Your task to perform on an android device: open device folders in google photos Image 0: 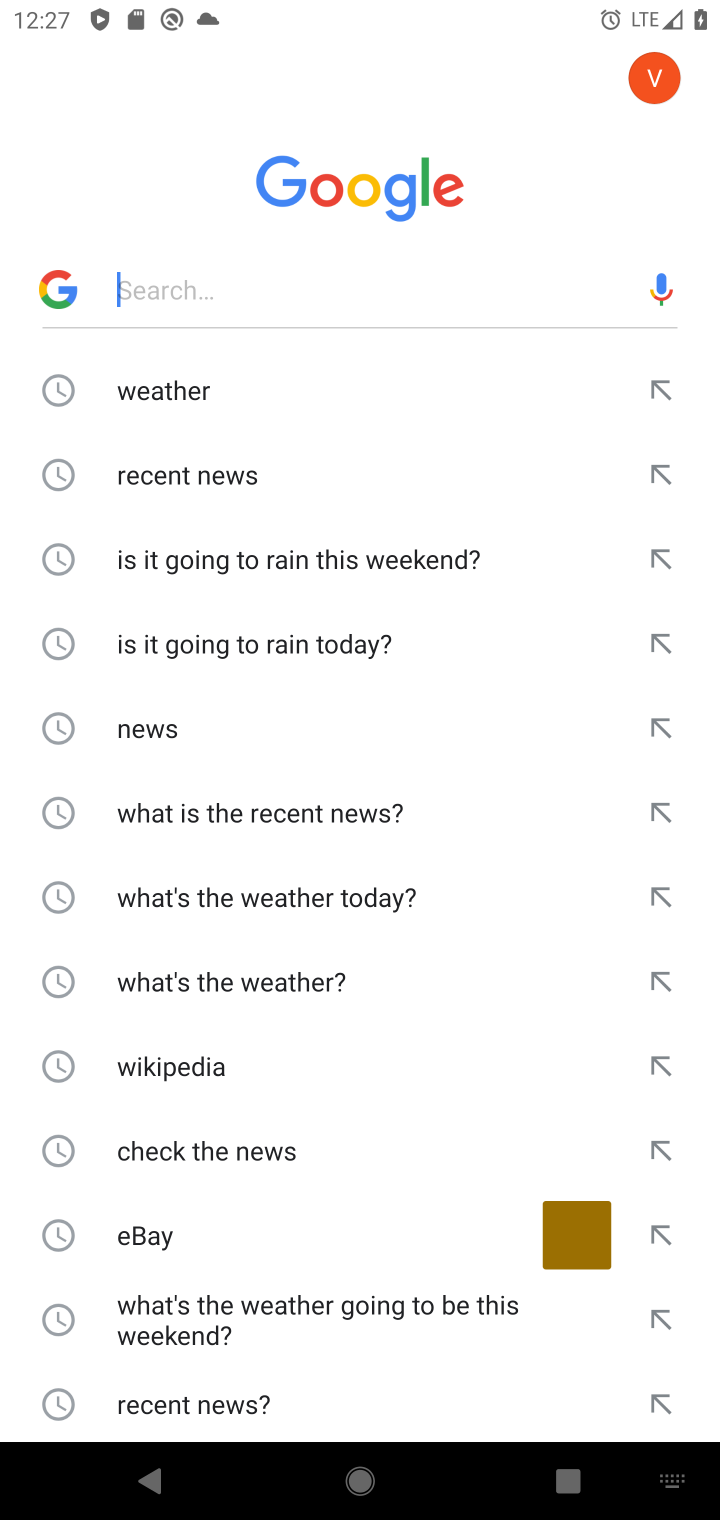
Step 0: press home button
Your task to perform on an android device: open device folders in google photos Image 1: 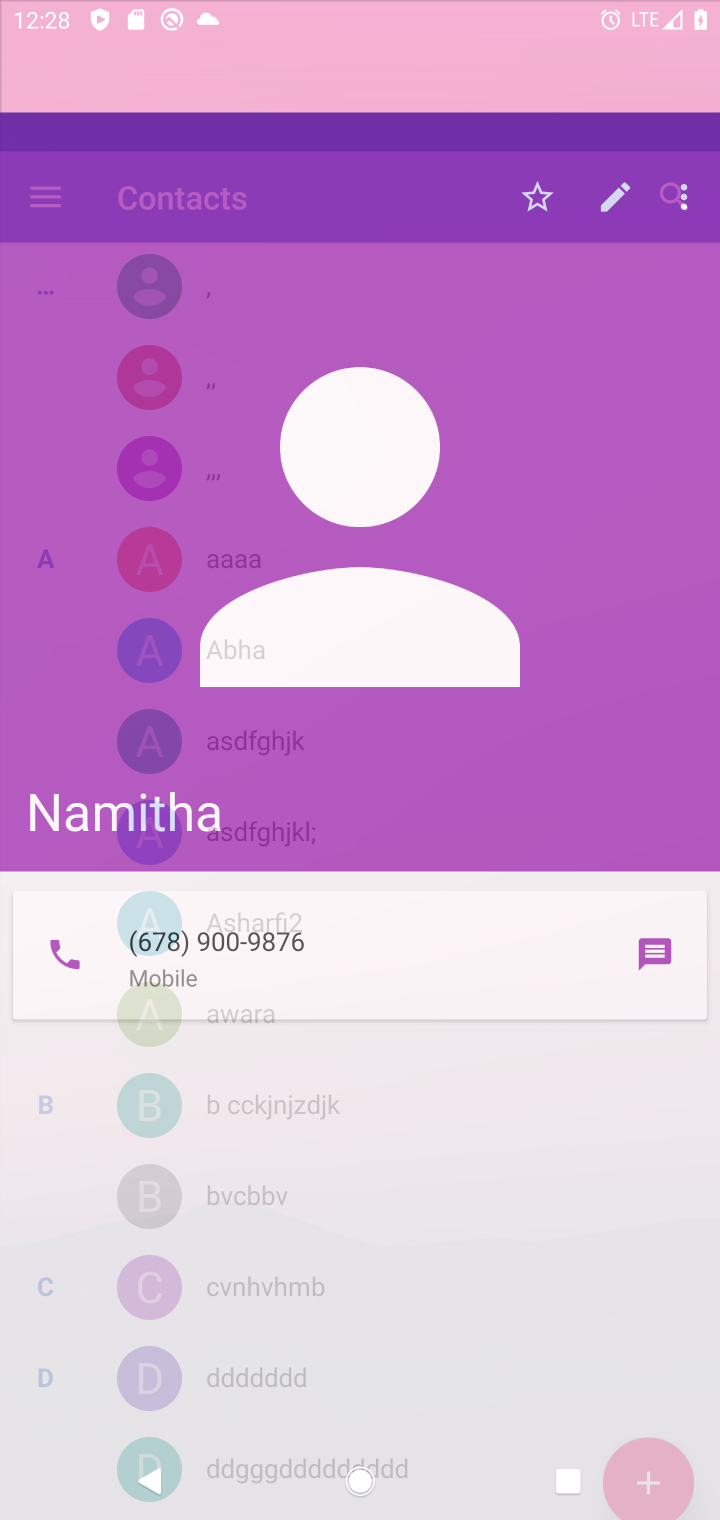
Step 1: press home button
Your task to perform on an android device: open device folders in google photos Image 2: 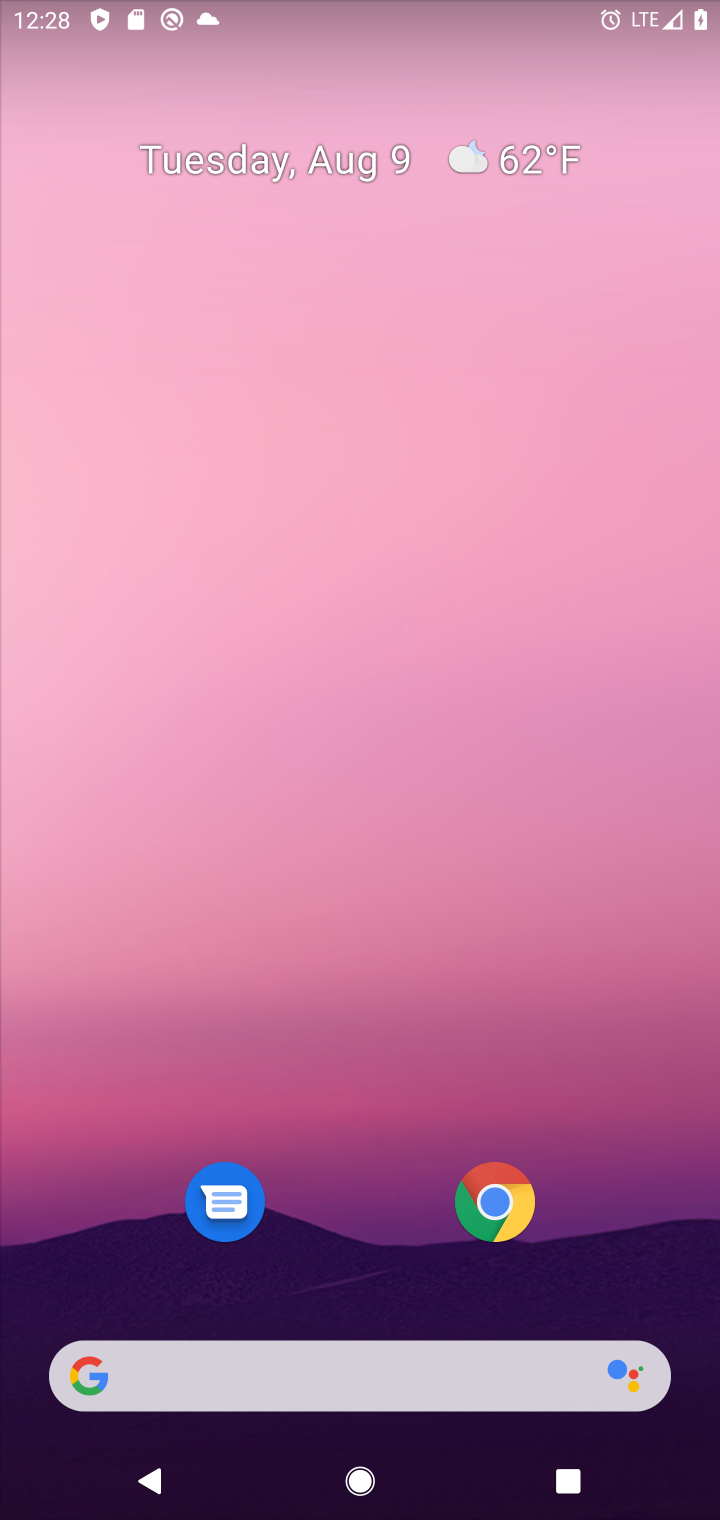
Step 2: click (333, 189)
Your task to perform on an android device: open device folders in google photos Image 3: 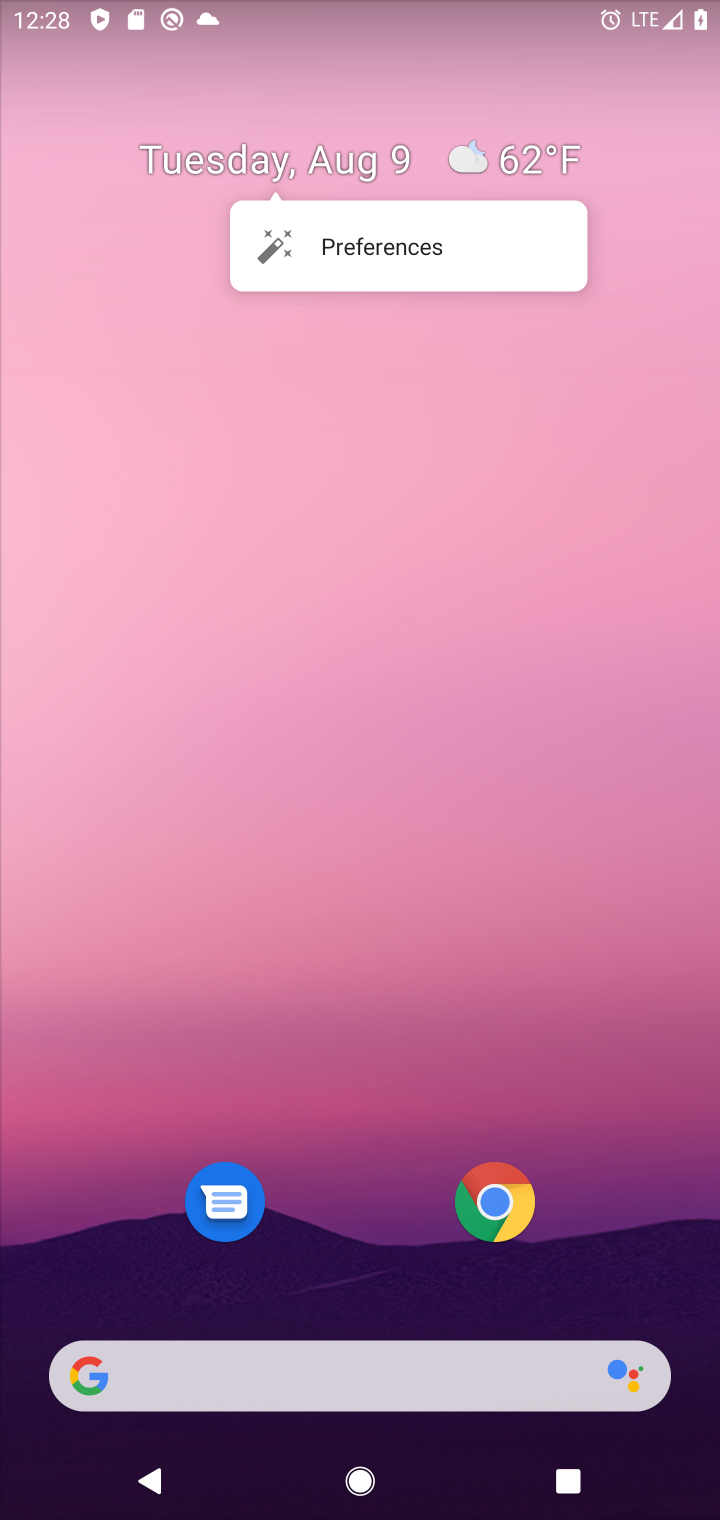
Step 3: drag from (347, 1118) to (410, 482)
Your task to perform on an android device: open device folders in google photos Image 4: 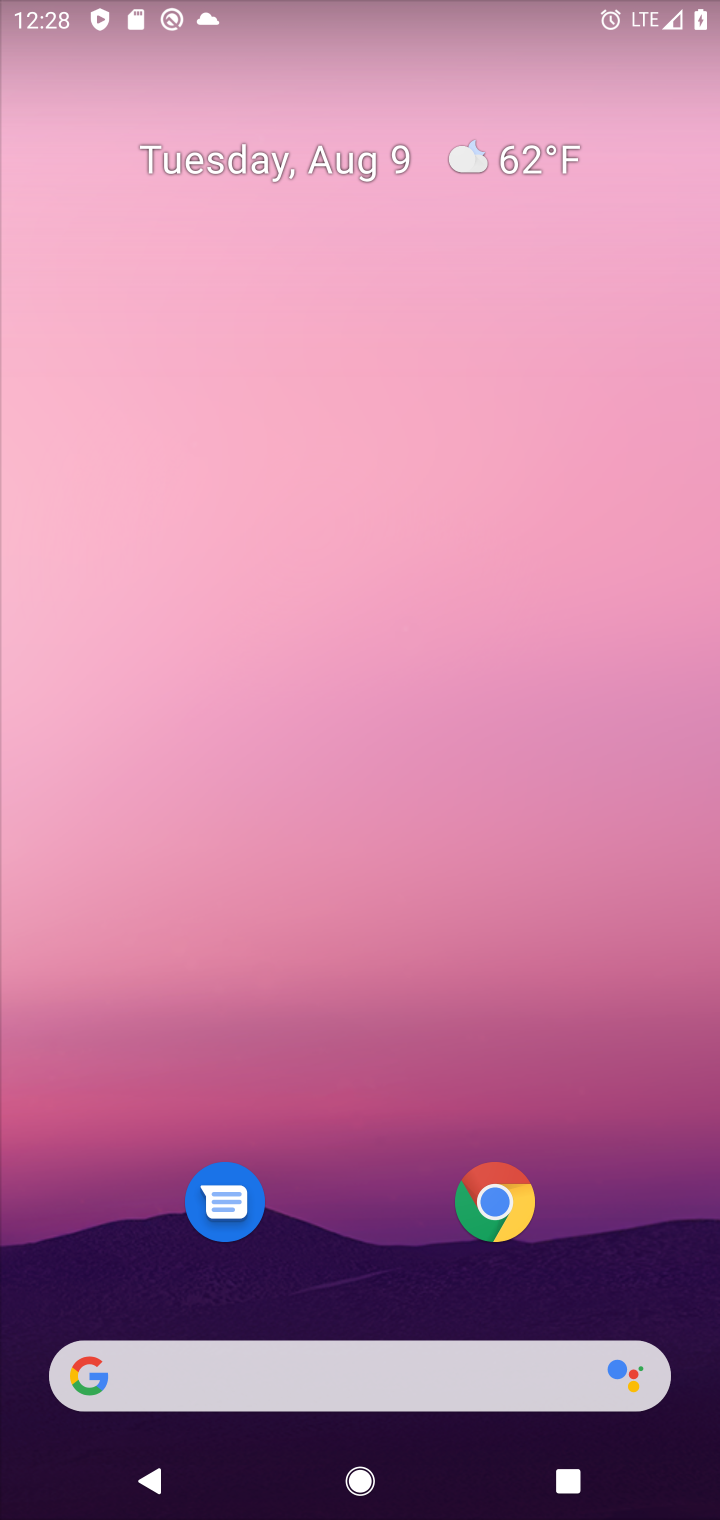
Step 4: drag from (307, 831) to (373, 585)
Your task to perform on an android device: open device folders in google photos Image 5: 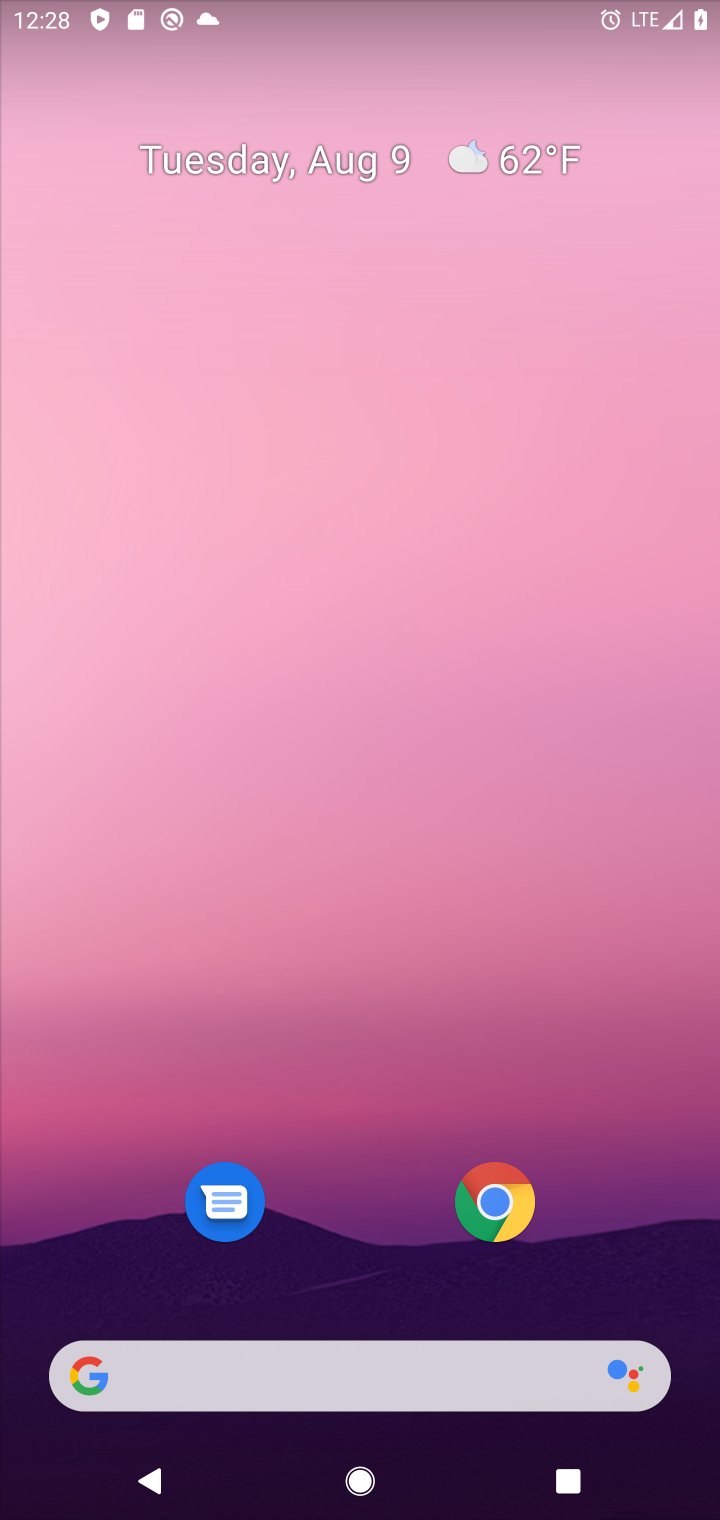
Step 5: drag from (356, 1273) to (351, 533)
Your task to perform on an android device: open device folders in google photos Image 6: 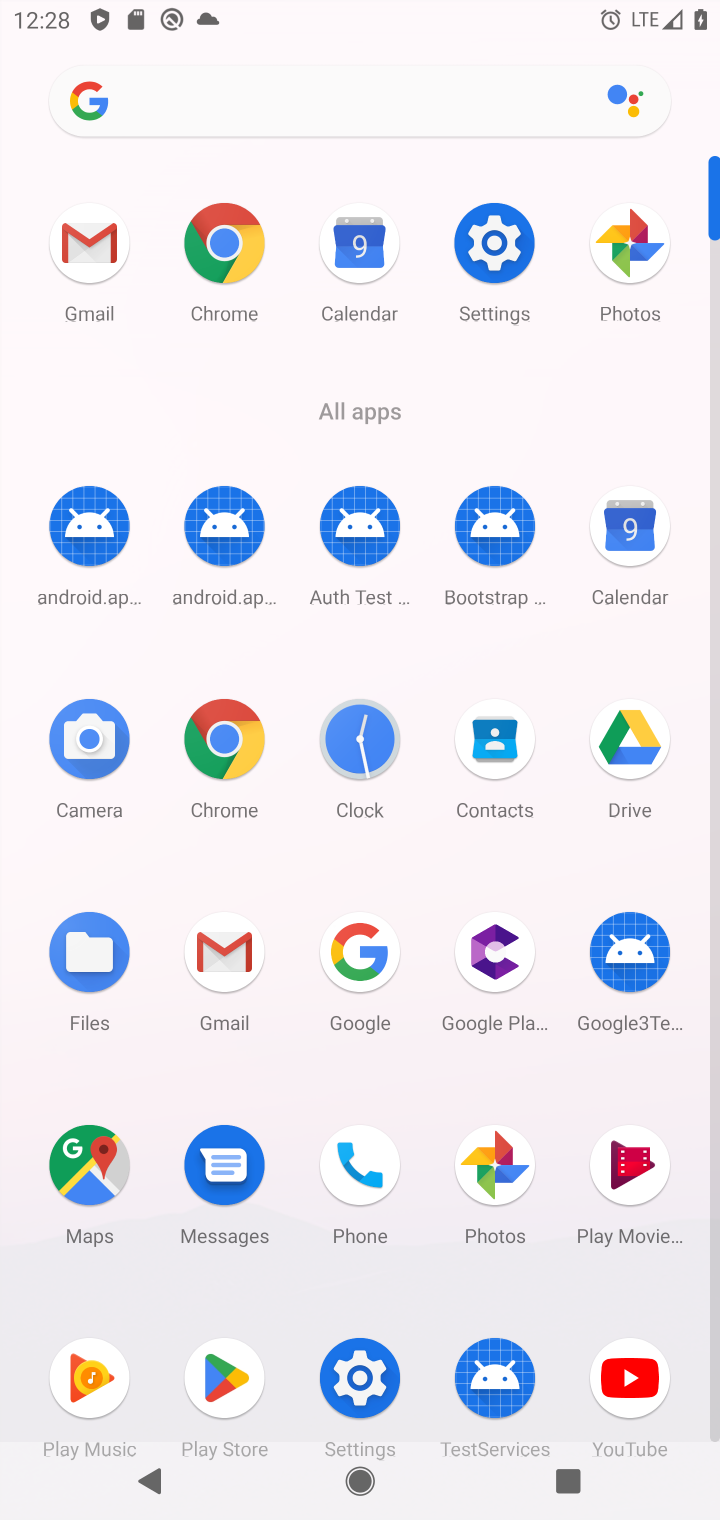
Step 6: click (503, 1146)
Your task to perform on an android device: open device folders in google photos Image 7: 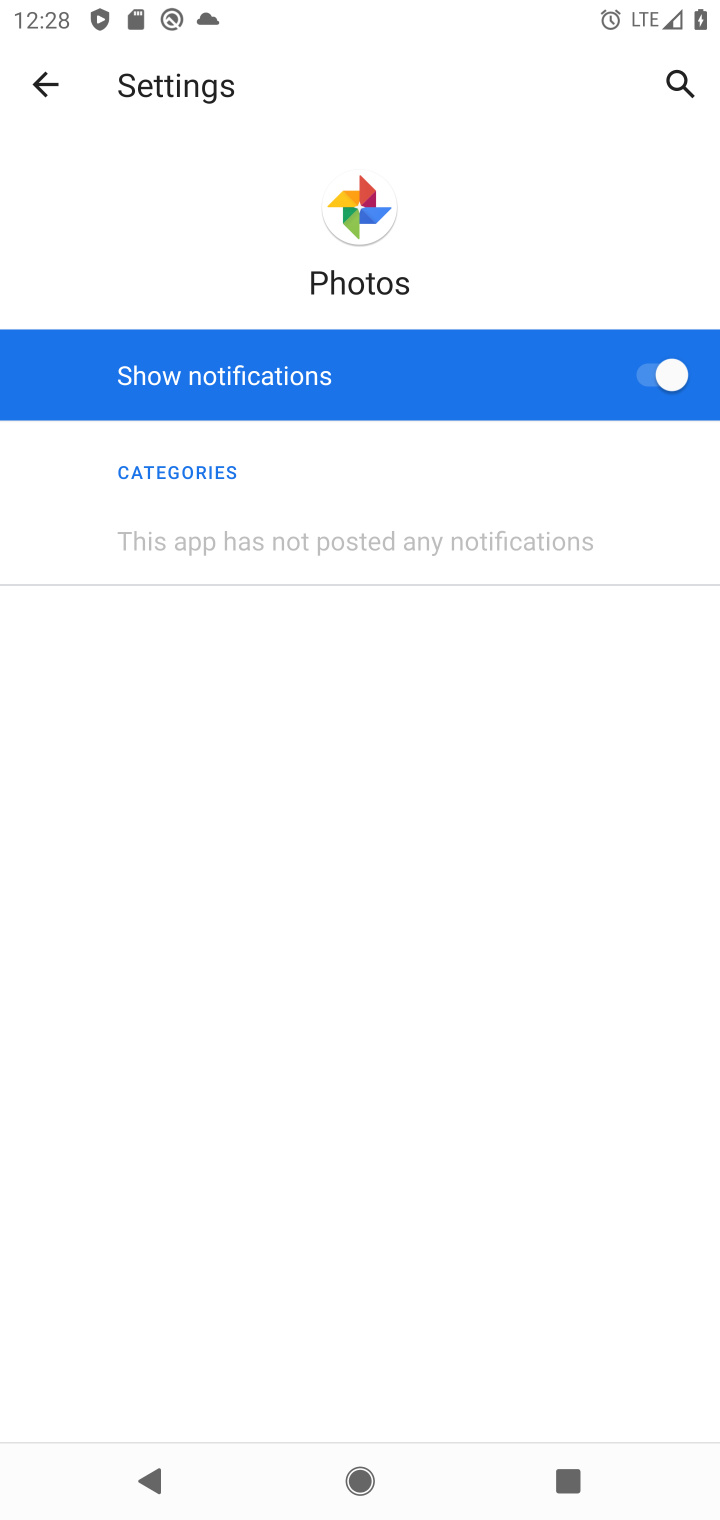
Step 7: click (40, 85)
Your task to perform on an android device: open device folders in google photos Image 8: 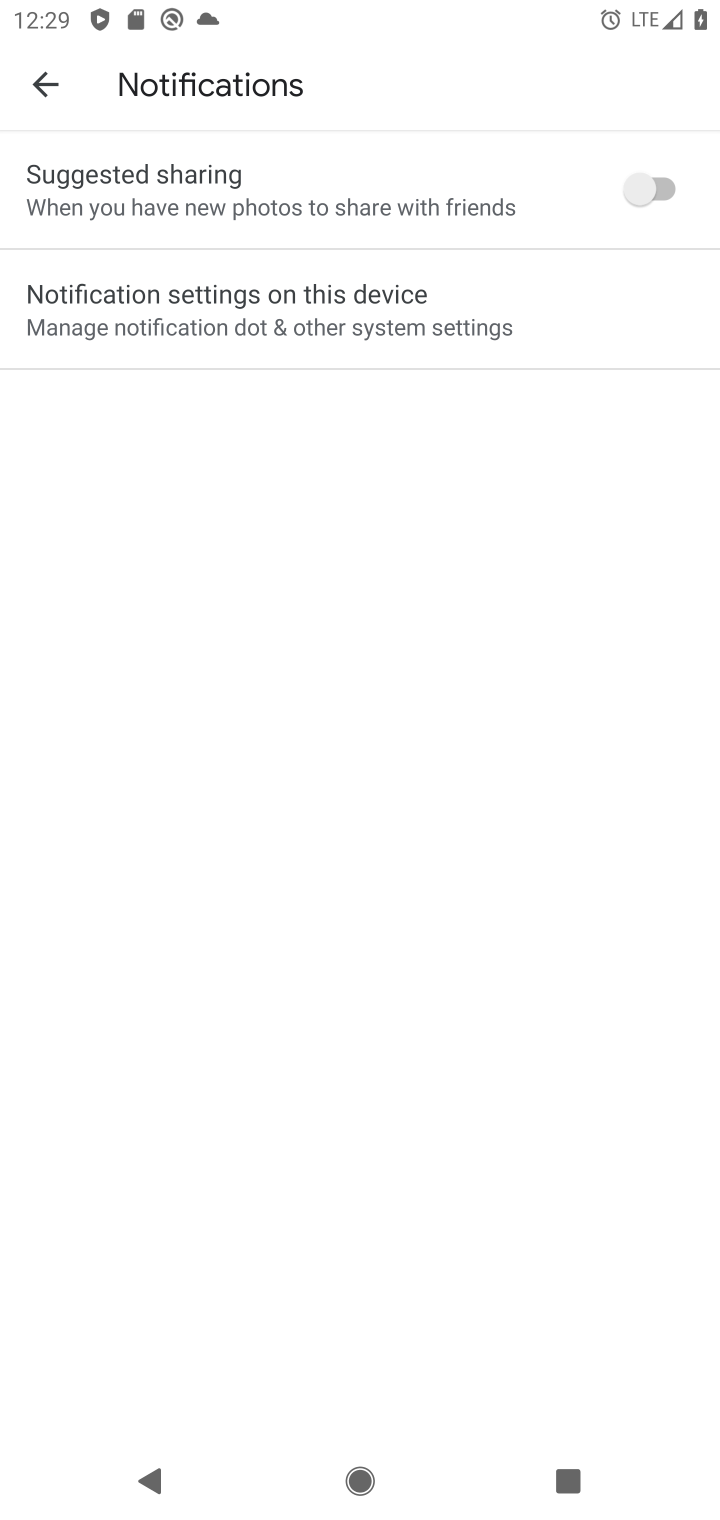
Step 8: click (40, 85)
Your task to perform on an android device: open device folders in google photos Image 9: 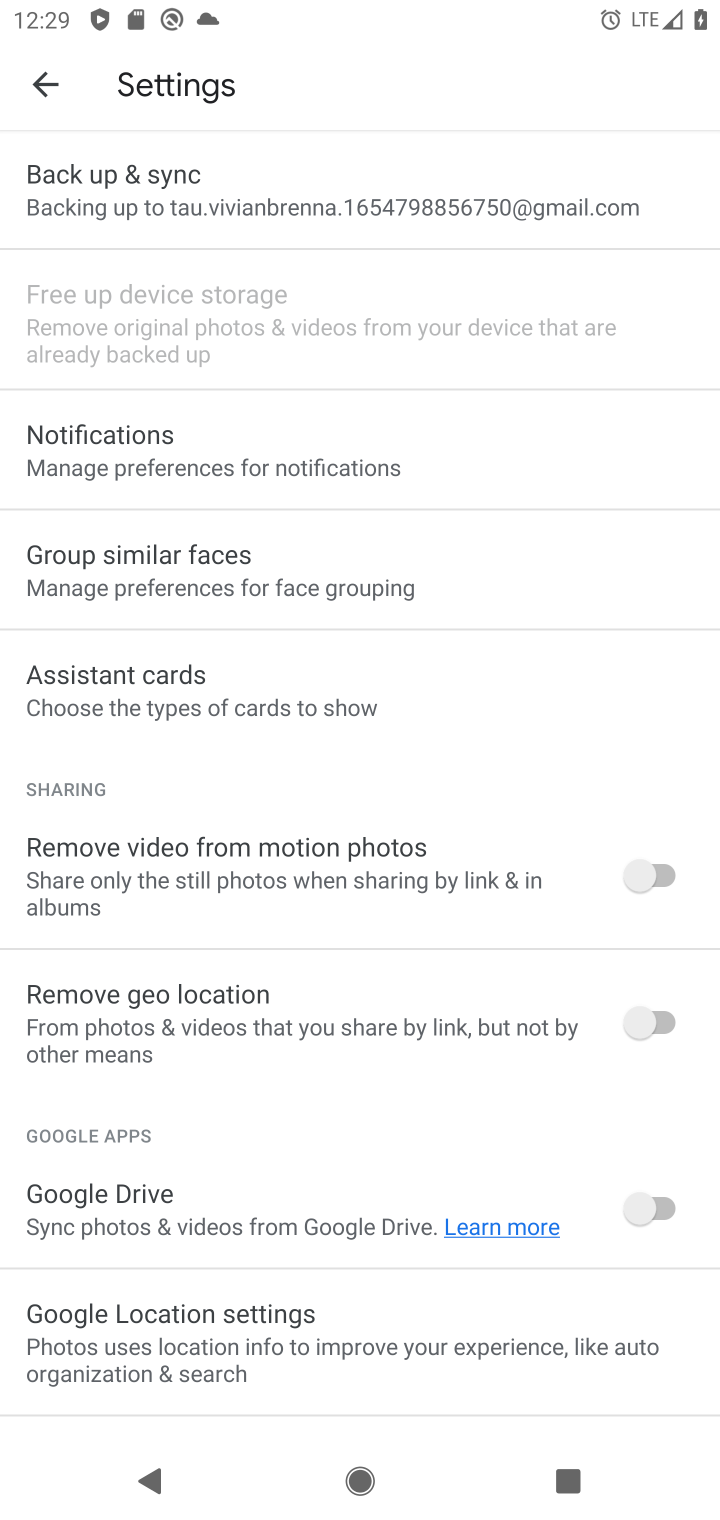
Step 9: click (40, 85)
Your task to perform on an android device: open device folders in google photos Image 10: 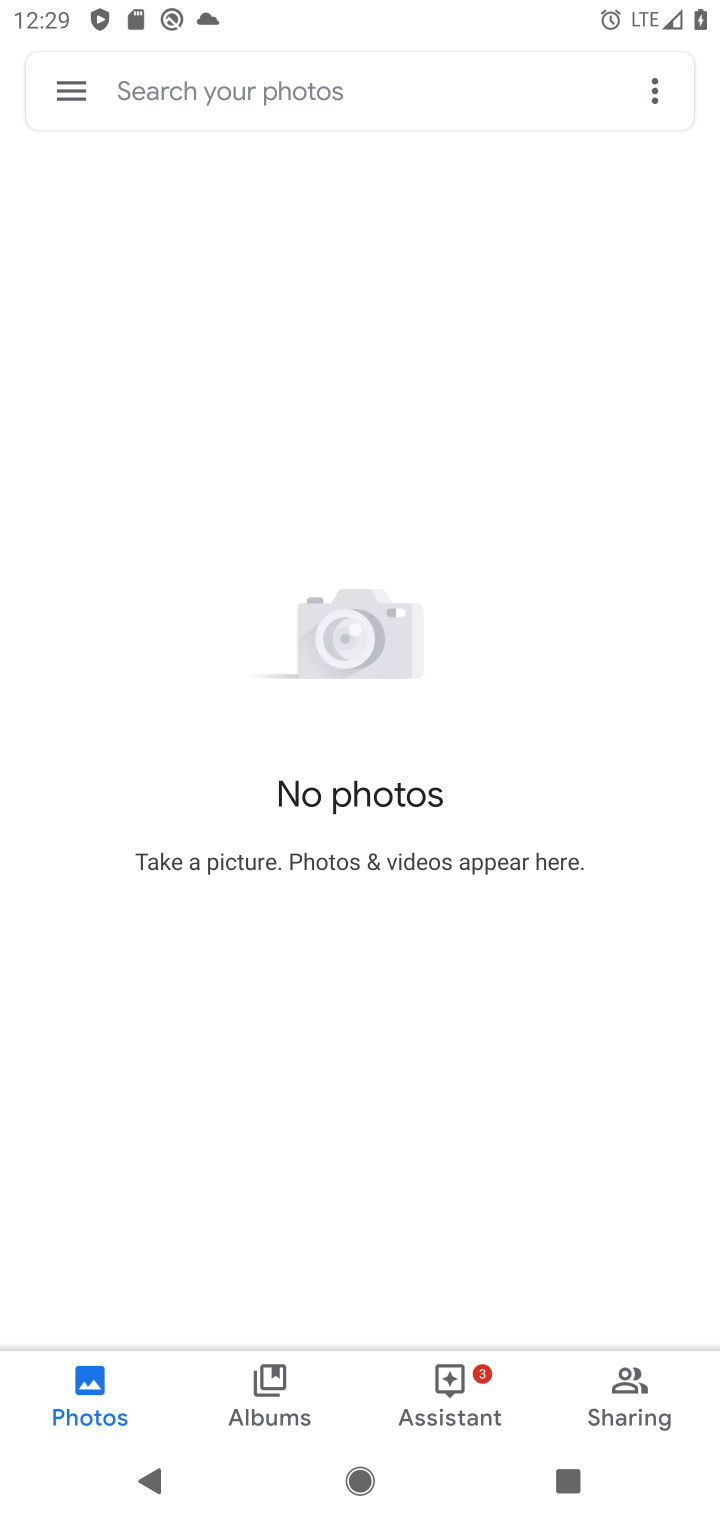
Step 10: click (67, 85)
Your task to perform on an android device: open device folders in google photos Image 11: 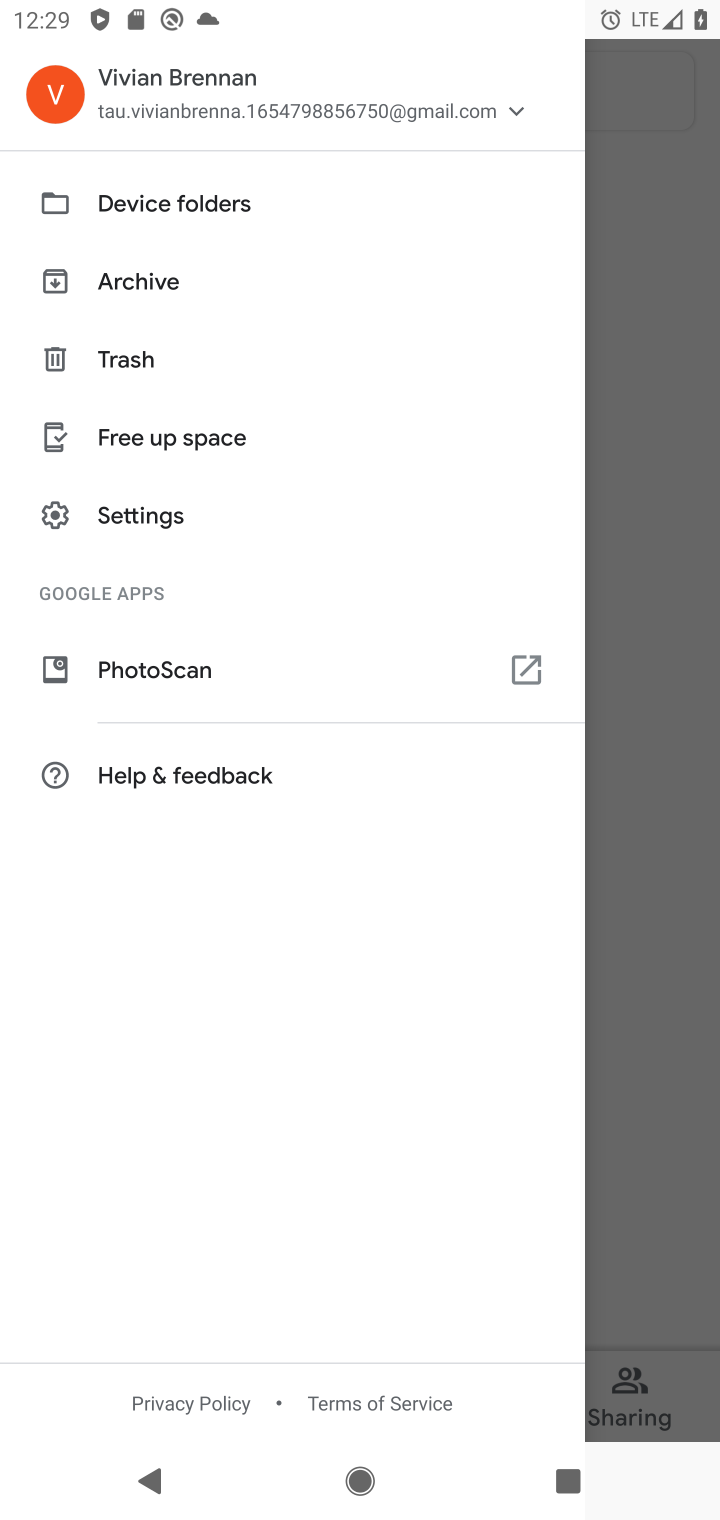
Step 11: click (163, 207)
Your task to perform on an android device: open device folders in google photos Image 12: 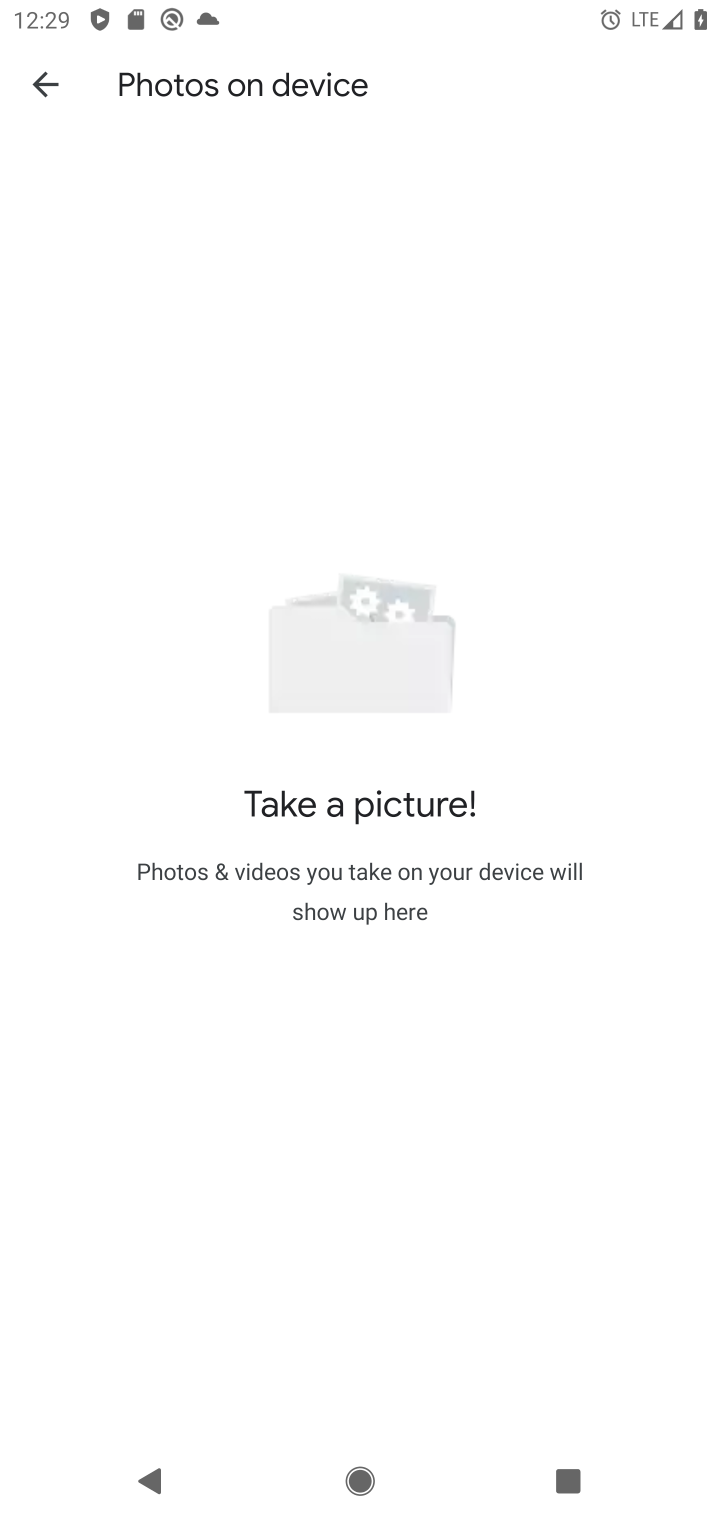
Step 12: task complete